Your task to perform on an android device: Open wifi settings Image 0: 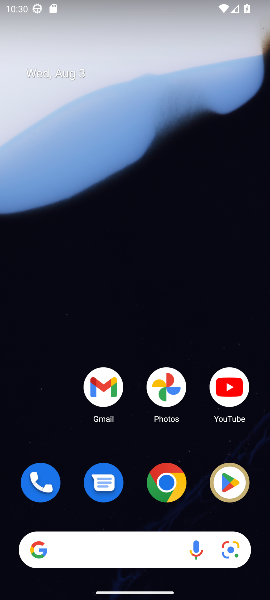
Step 0: task complete